Your task to perform on an android device: Go to Google maps Image 0: 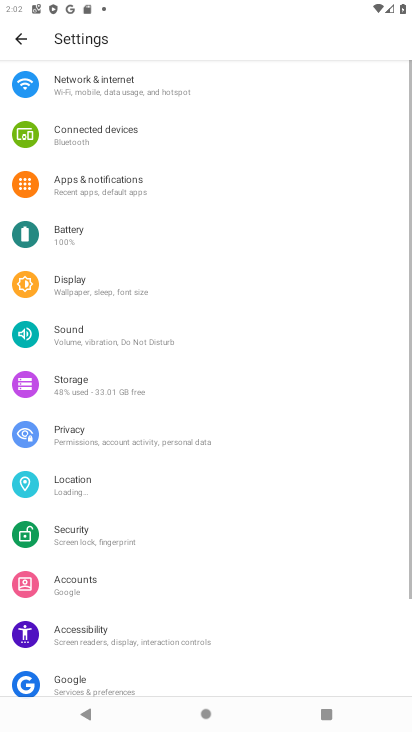
Step 0: press home button
Your task to perform on an android device: Go to Google maps Image 1: 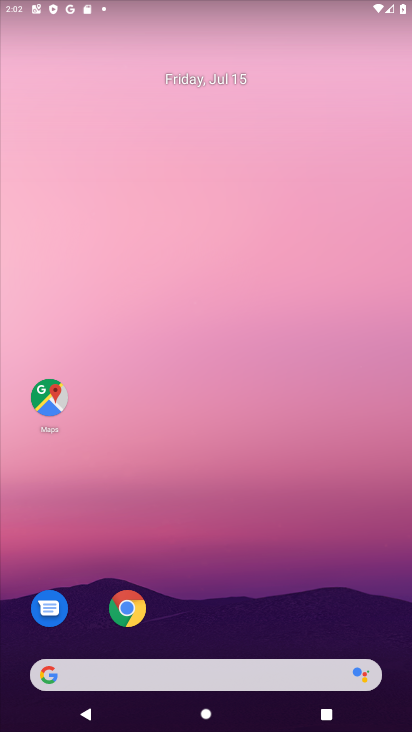
Step 1: drag from (168, 720) to (126, 109)
Your task to perform on an android device: Go to Google maps Image 2: 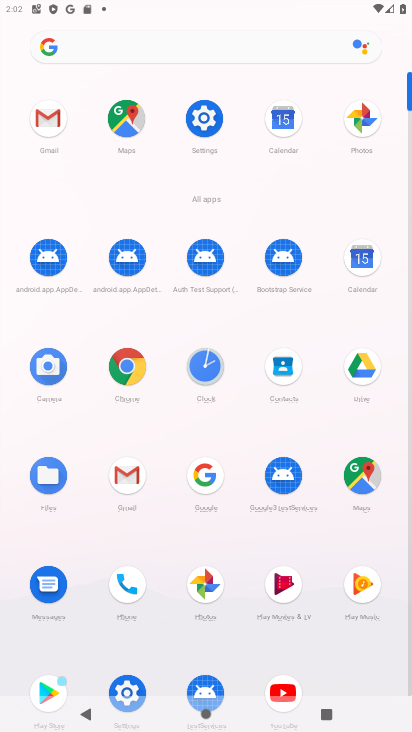
Step 2: click (356, 471)
Your task to perform on an android device: Go to Google maps Image 3: 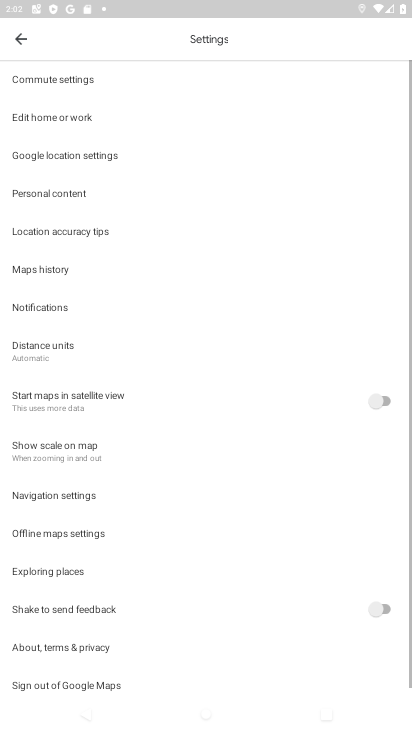
Step 3: click (24, 38)
Your task to perform on an android device: Go to Google maps Image 4: 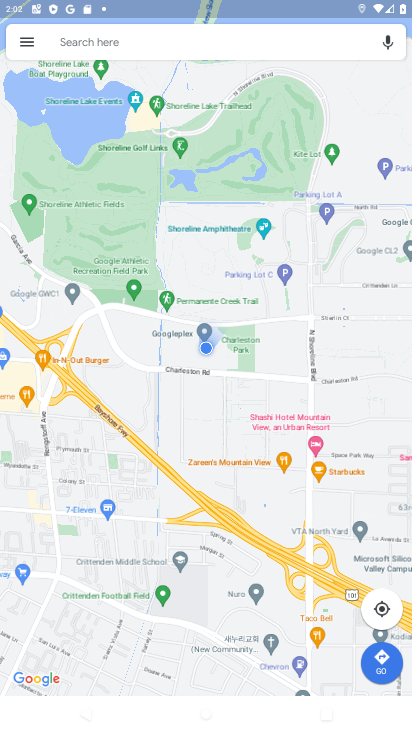
Step 4: task complete